Your task to perform on an android device: Go to Google maps Image 0: 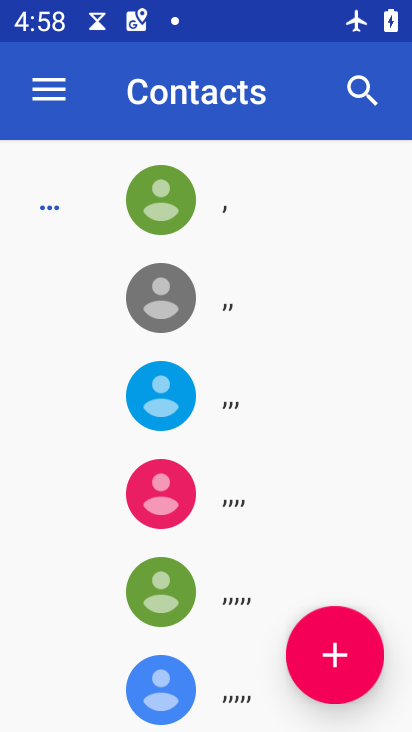
Step 0: press home button
Your task to perform on an android device: Go to Google maps Image 1: 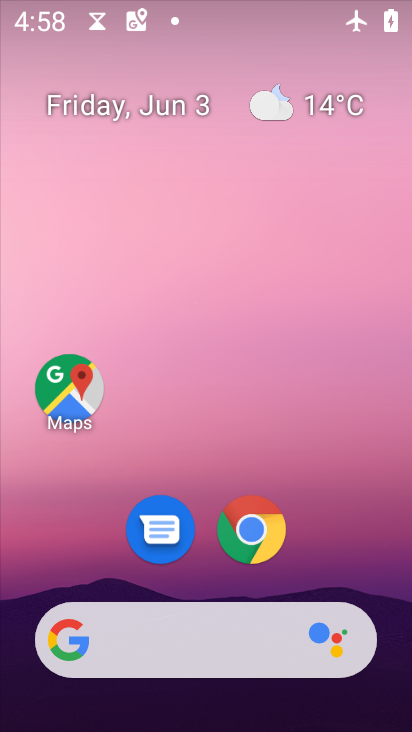
Step 1: drag from (325, 488) to (380, 19)
Your task to perform on an android device: Go to Google maps Image 2: 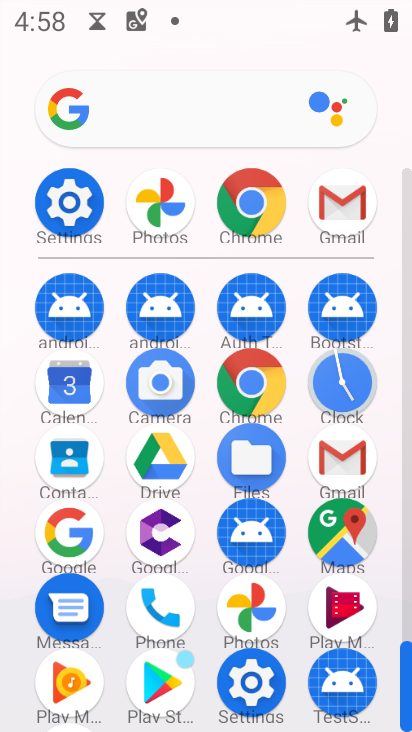
Step 2: click (332, 536)
Your task to perform on an android device: Go to Google maps Image 3: 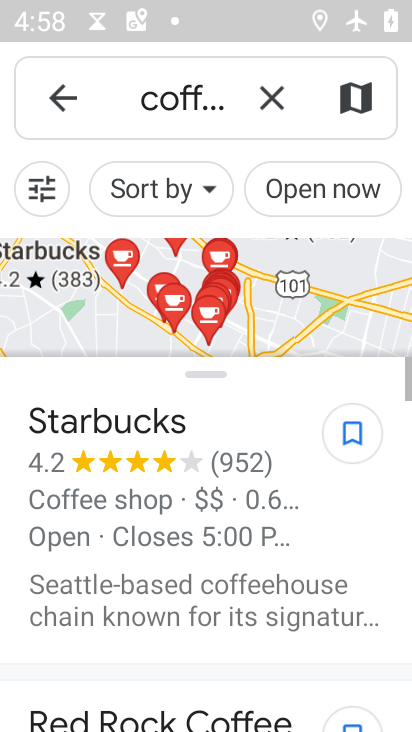
Step 3: task complete